Your task to perform on an android device: Search for "razer thresher" on walmart, select the first entry, and add it to the cart. Image 0: 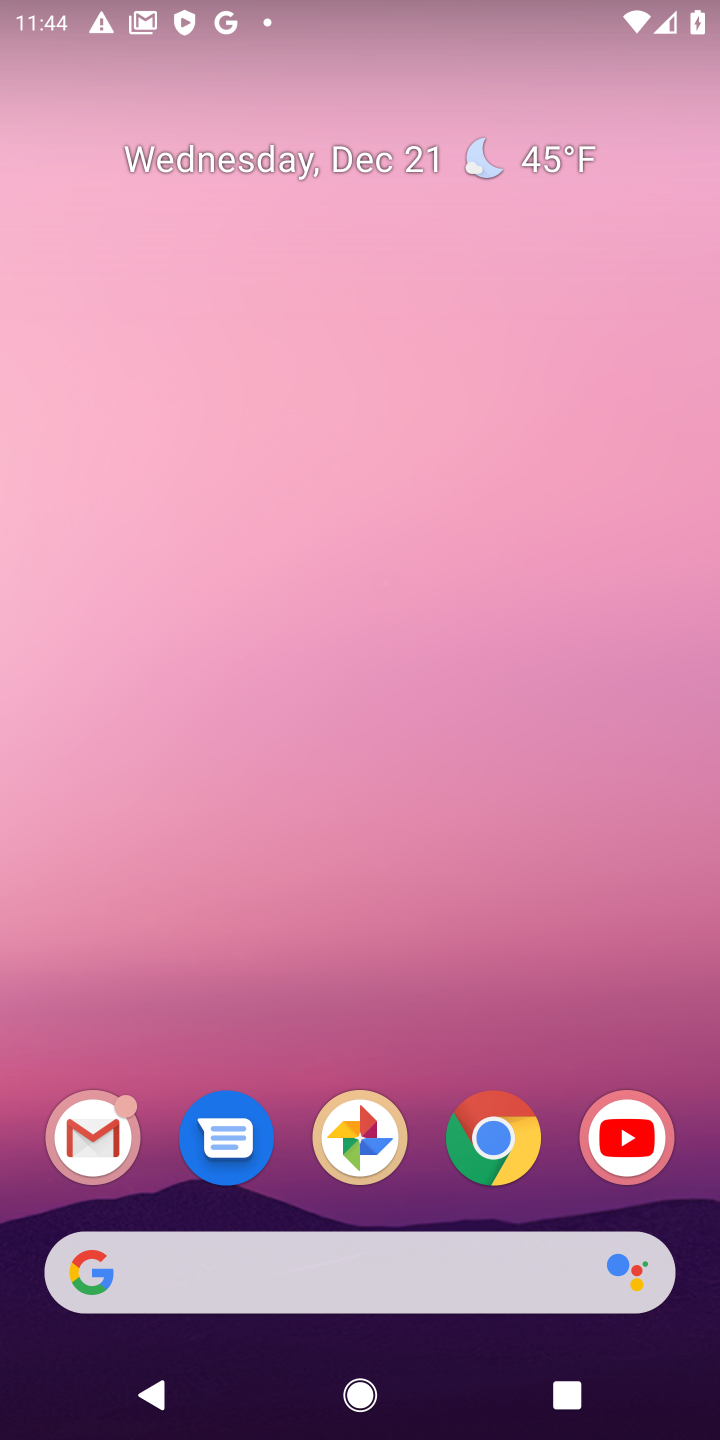
Step 0: click (494, 1140)
Your task to perform on an android device: Search for "razer thresher" on walmart, select the first entry, and add it to the cart. Image 1: 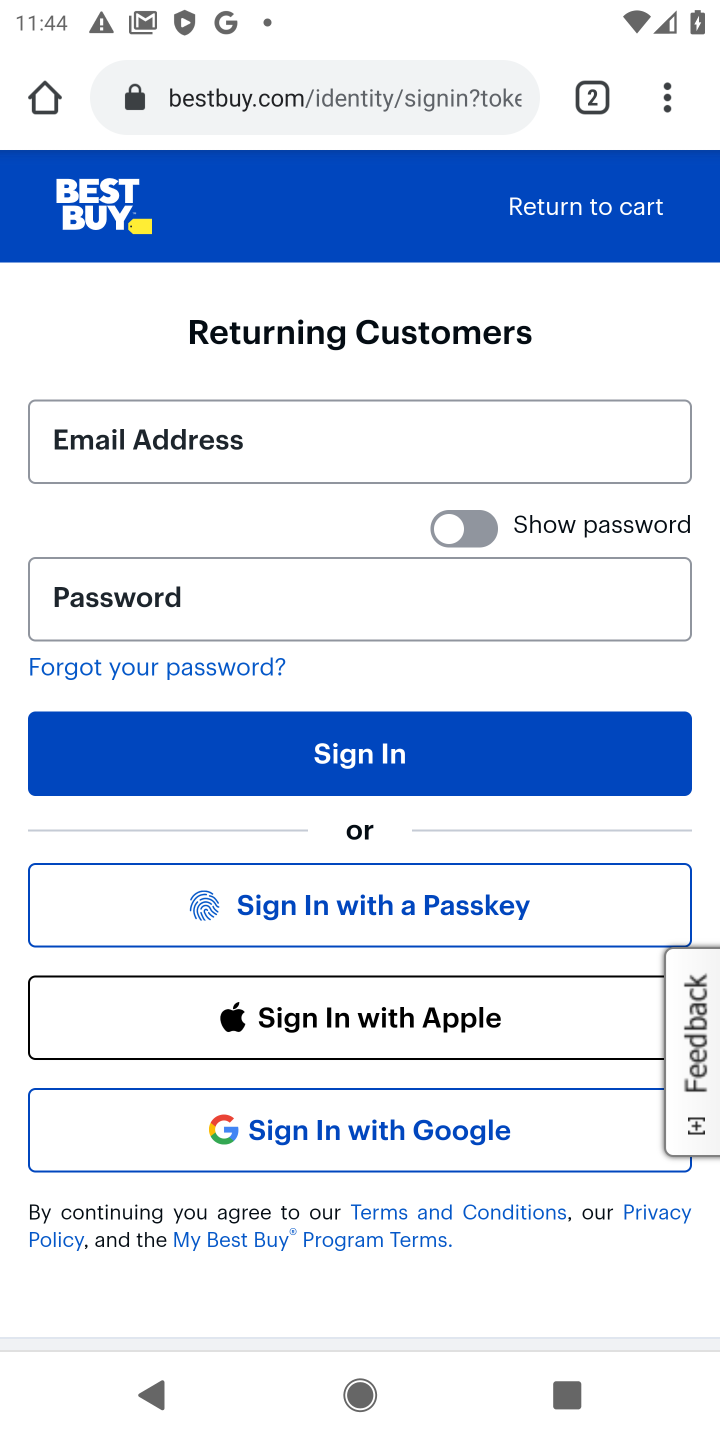
Step 1: click (288, 101)
Your task to perform on an android device: Search for "razer thresher" on walmart, select the first entry, and add it to the cart. Image 2: 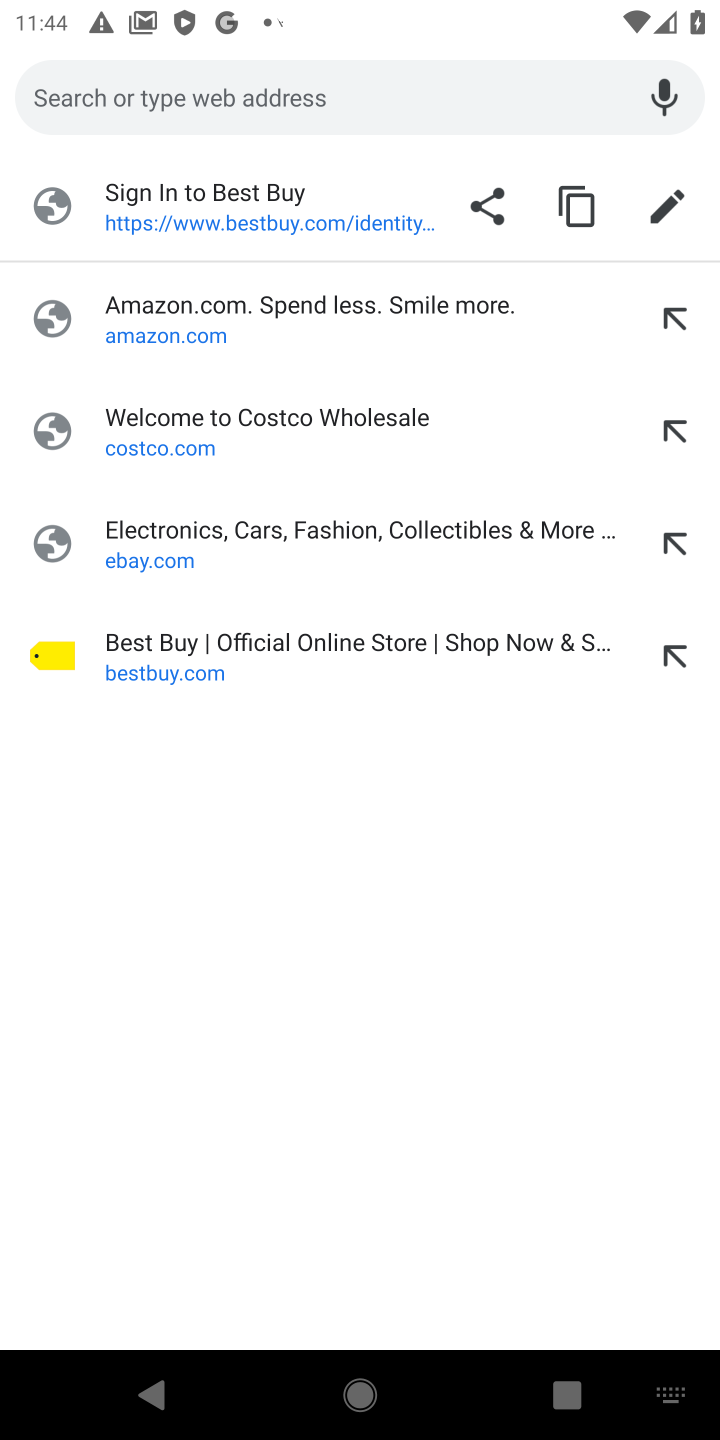
Step 2: type "walmart.com"
Your task to perform on an android device: Search for "razer thresher" on walmart, select the first entry, and add it to the cart. Image 3: 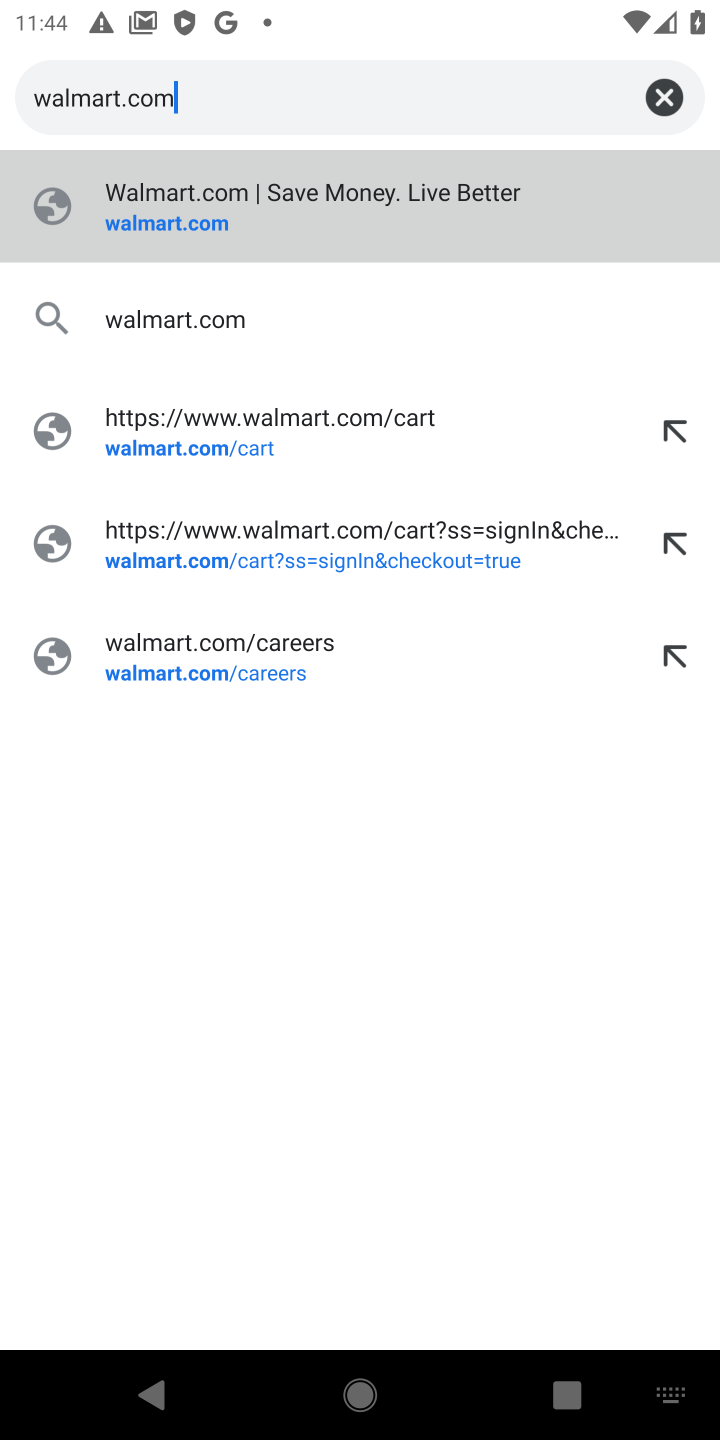
Step 3: click (128, 220)
Your task to perform on an android device: Search for "razer thresher" on walmart, select the first entry, and add it to the cart. Image 4: 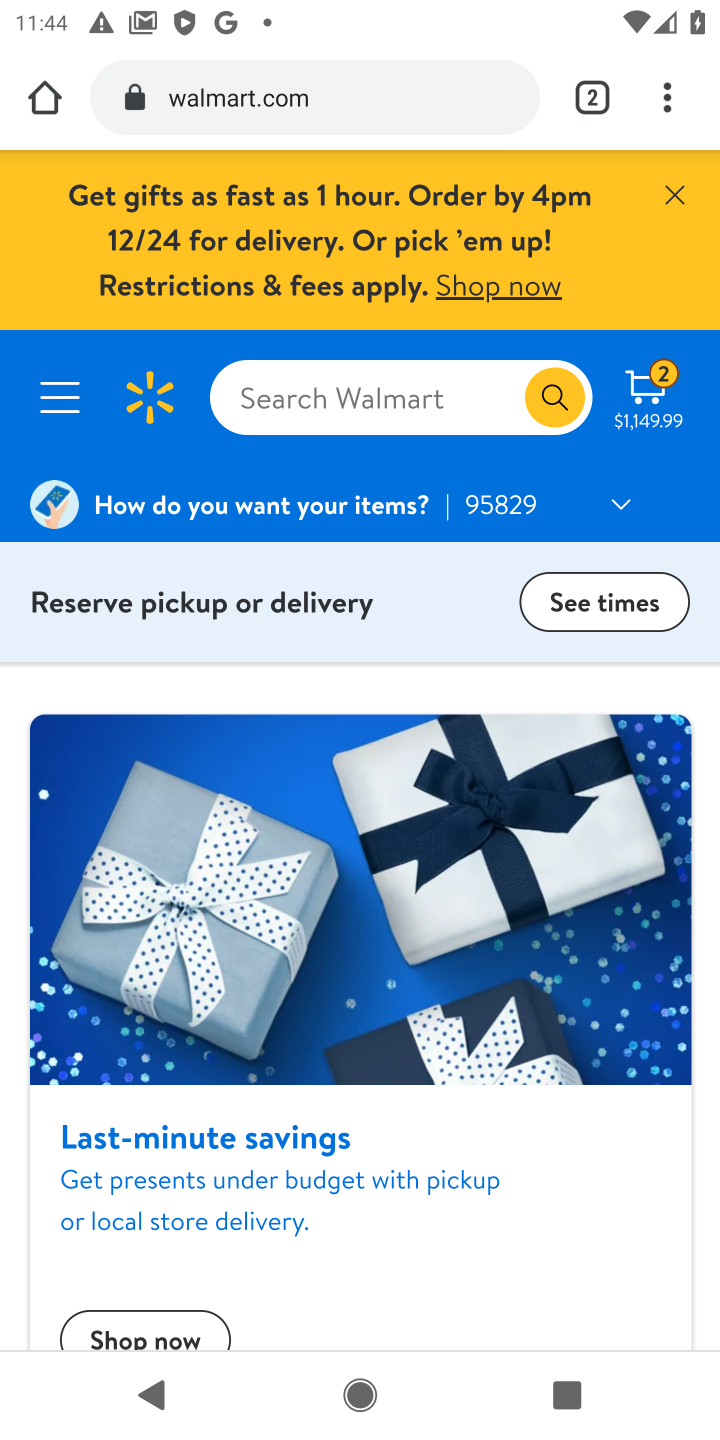
Step 4: click (326, 396)
Your task to perform on an android device: Search for "razer thresher" on walmart, select the first entry, and add it to the cart. Image 5: 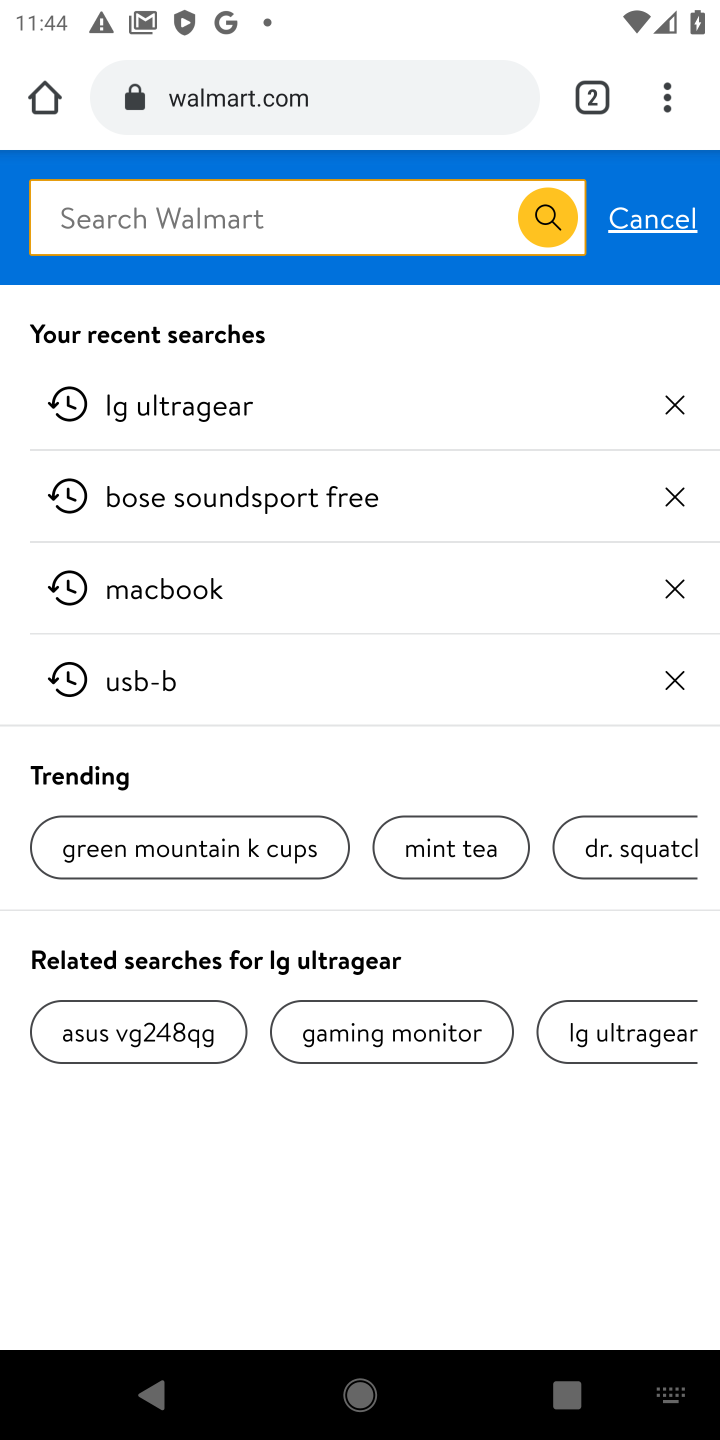
Step 5: type "razer thresher"
Your task to perform on an android device: Search for "razer thresher" on walmart, select the first entry, and add it to the cart. Image 6: 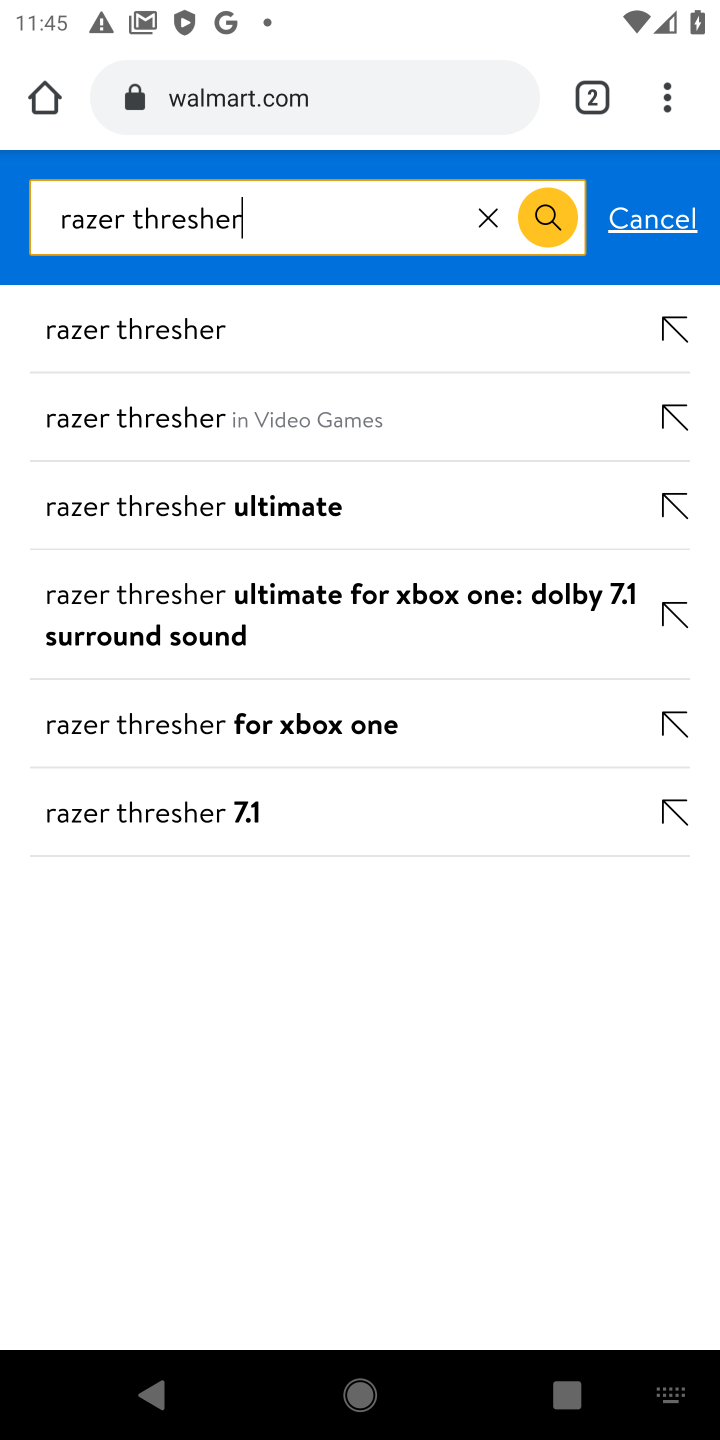
Step 6: click (138, 343)
Your task to perform on an android device: Search for "razer thresher" on walmart, select the first entry, and add it to the cart. Image 7: 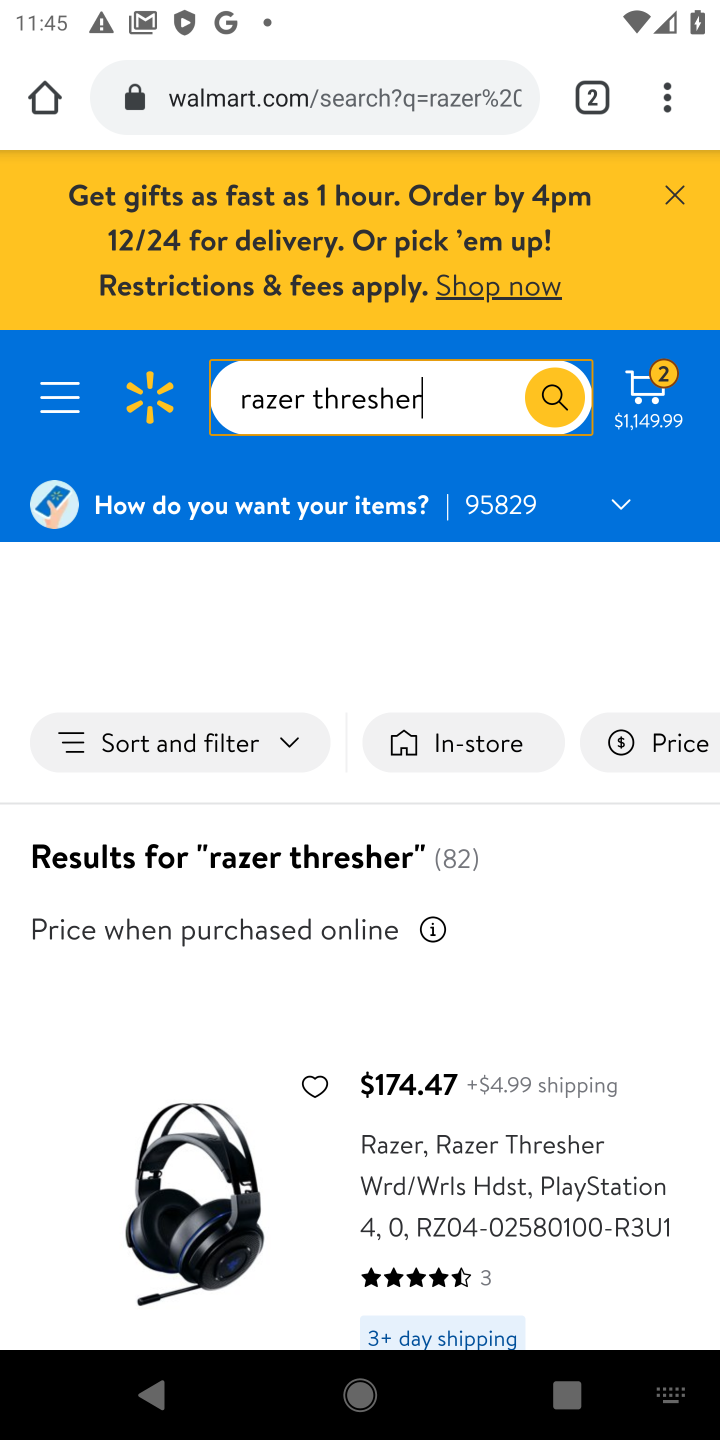
Step 7: drag from (434, 1168) to (493, 632)
Your task to perform on an android device: Search for "razer thresher" on walmart, select the first entry, and add it to the cart. Image 8: 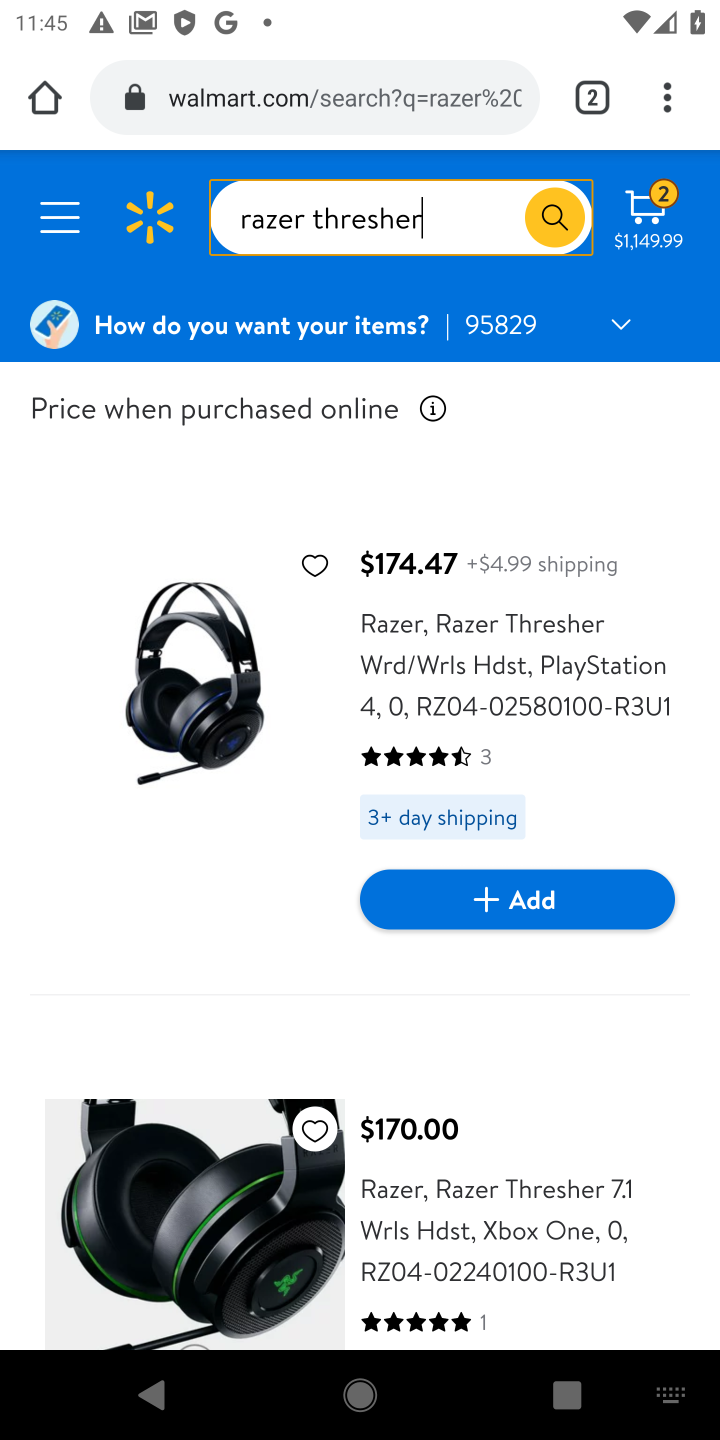
Step 8: click (530, 914)
Your task to perform on an android device: Search for "razer thresher" on walmart, select the first entry, and add it to the cart. Image 9: 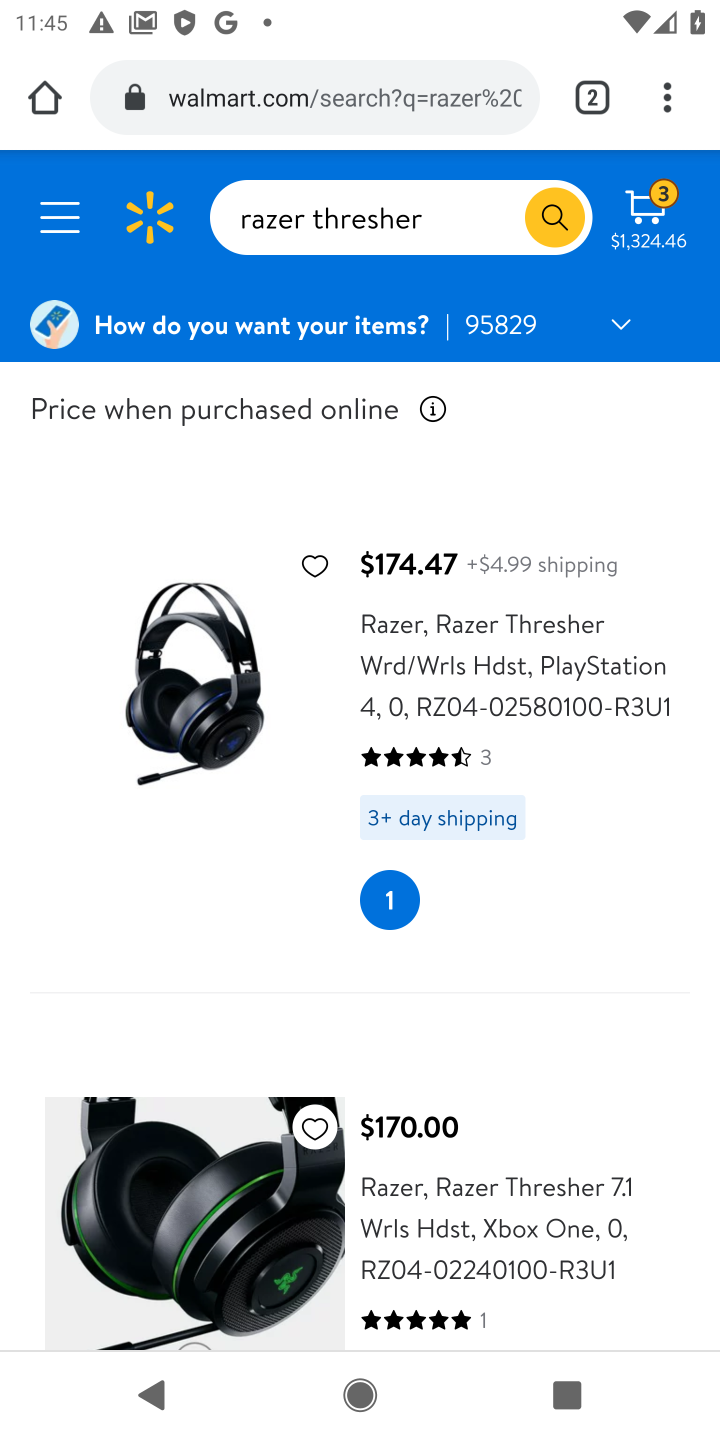
Step 9: task complete